Your task to perform on an android device: Go to settings Image 0: 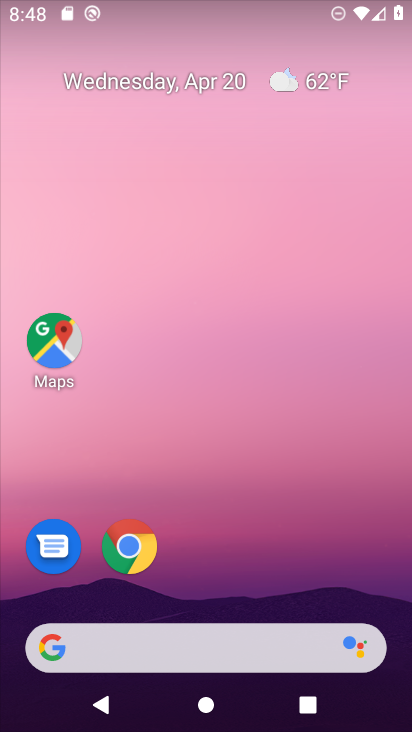
Step 0: drag from (268, 556) to (248, 114)
Your task to perform on an android device: Go to settings Image 1: 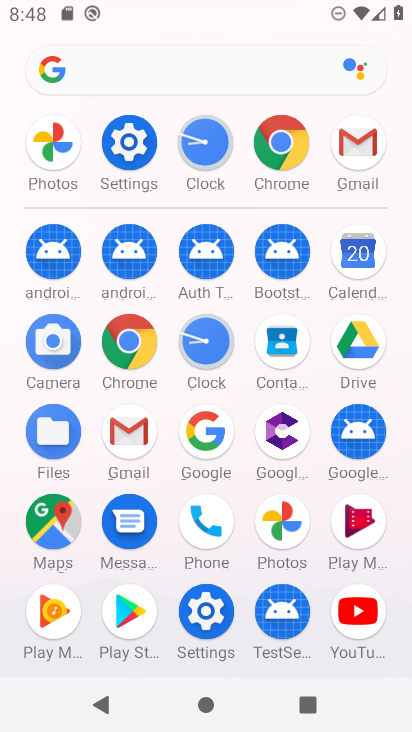
Step 1: click (132, 131)
Your task to perform on an android device: Go to settings Image 2: 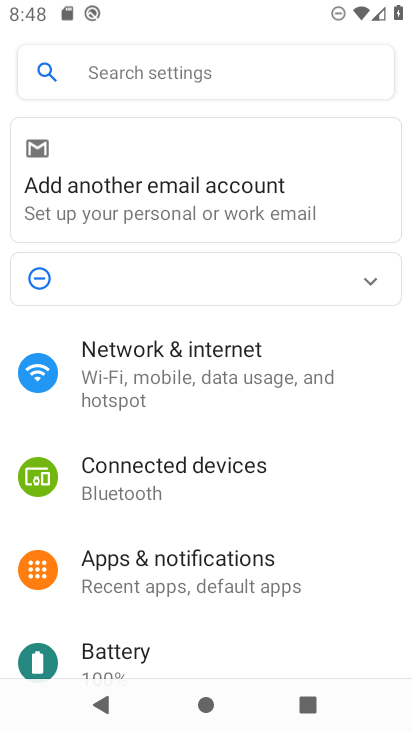
Step 2: task complete